Your task to perform on an android device: toggle notifications settings in the gmail app Image 0: 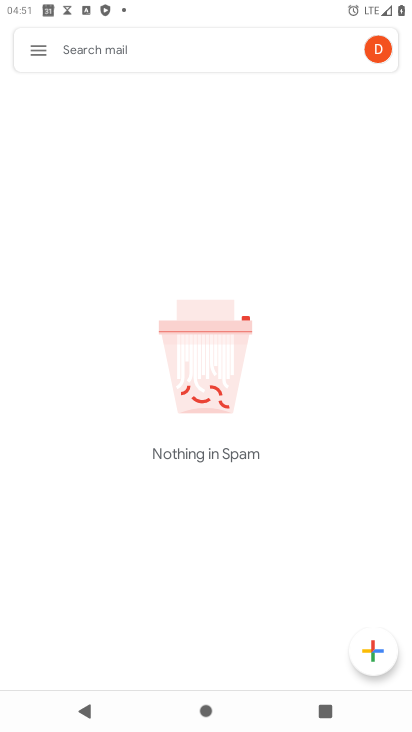
Step 0: press home button
Your task to perform on an android device: toggle notifications settings in the gmail app Image 1: 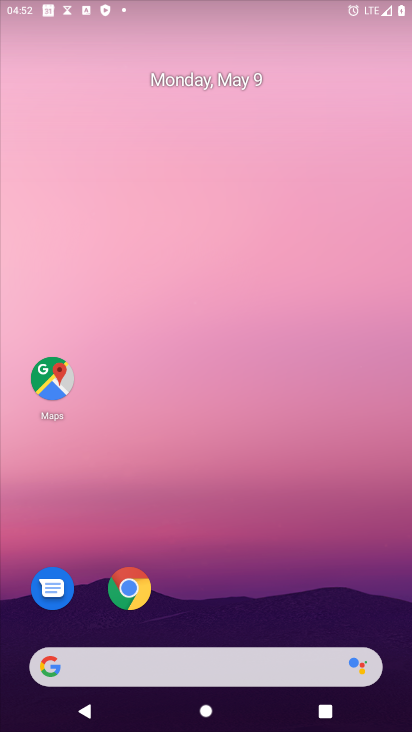
Step 1: drag from (273, 544) to (210, 76)
Your task to perform on an android device: toggle notifications settings in the gmail app Image 2: 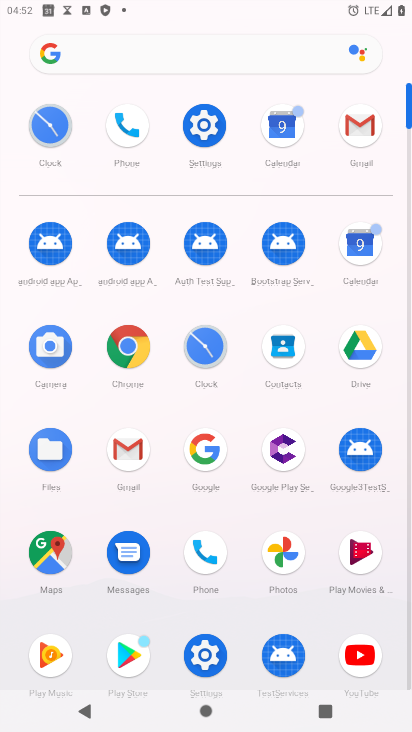
Step 2: click (361, 131)
Your task to perform on an android device: toggle notifications settings in the gmail app Image 3: 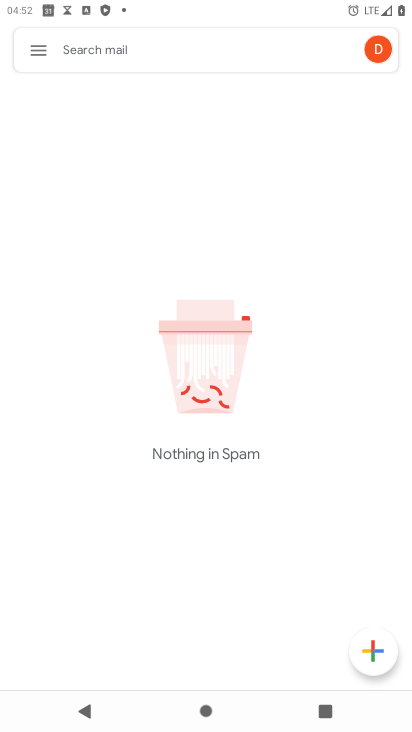
Step 3: click (30, 44)
Your task to perform on an android device: toggle notifications settings in the gmail app Image 4: 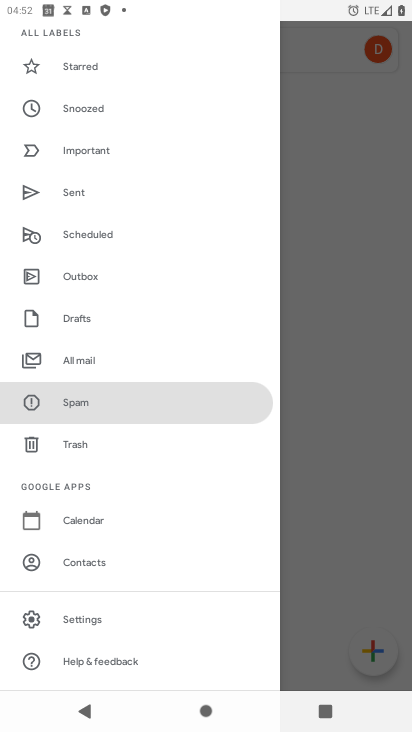
Step 4: click (121, 611)
Your task to perform on an android device: toggle notifications settings in the gmail app Image 5: 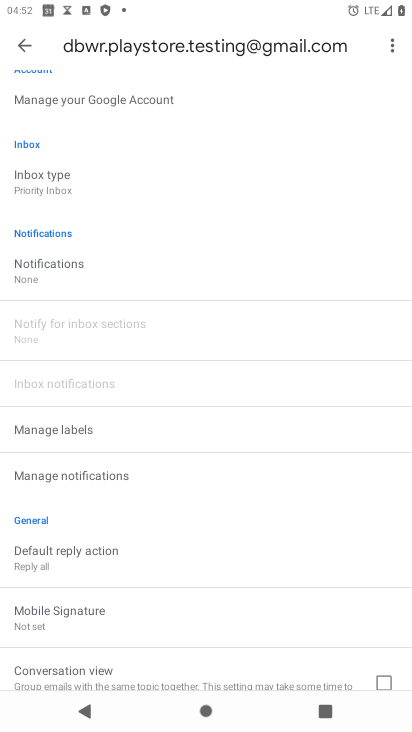
Step 5: click (86, 269)
Your task to perform on an android device: toggle notifications settings in the gmail app Image 6: 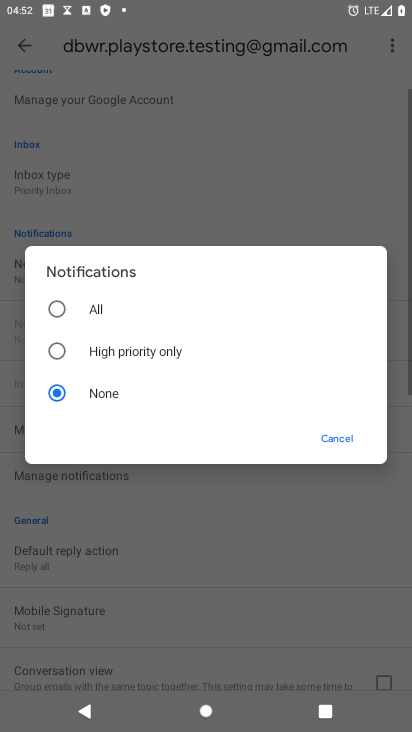
Step 6: click (103, 310)
Your task to perform on an android device: toggle notifications settings in the gmail app Image 7: 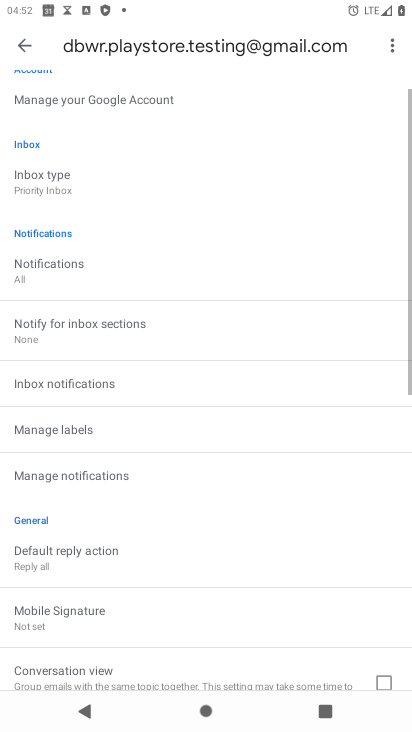
Step 7: task complete